Your task to perform on an android device: Open Google Chrome Image 0: 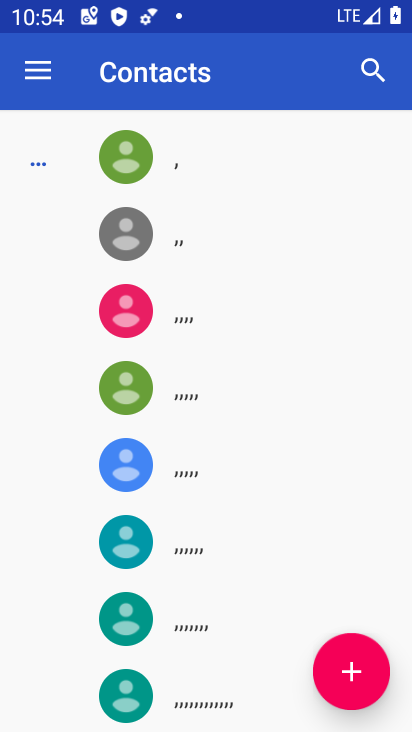
Step 0: press home button
Your task to perform on an android device: Open Google Chrome Image 1: 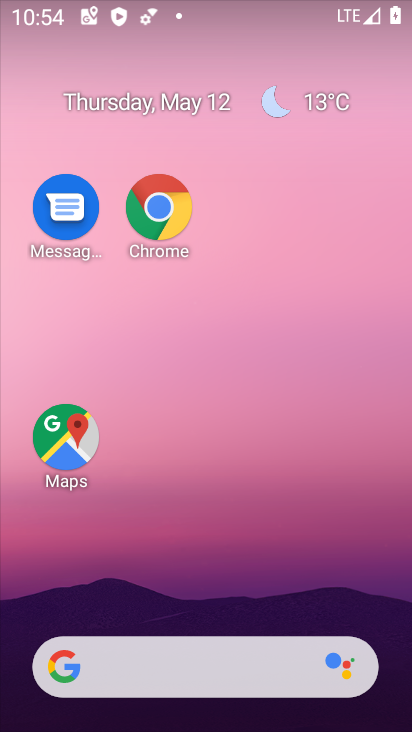
Step 1: click (165, 232)
Your task to perform on an android device: Open Google Chrome Image 2: 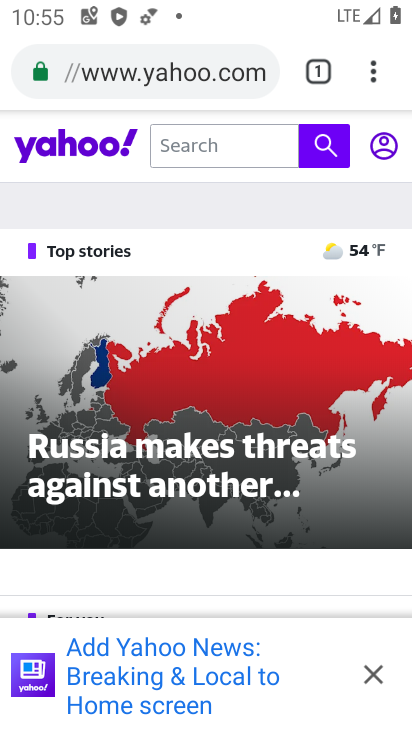
Step 2: task complete